Your task to perform on an android device: What's the weather going to be this weekend? Image 0: 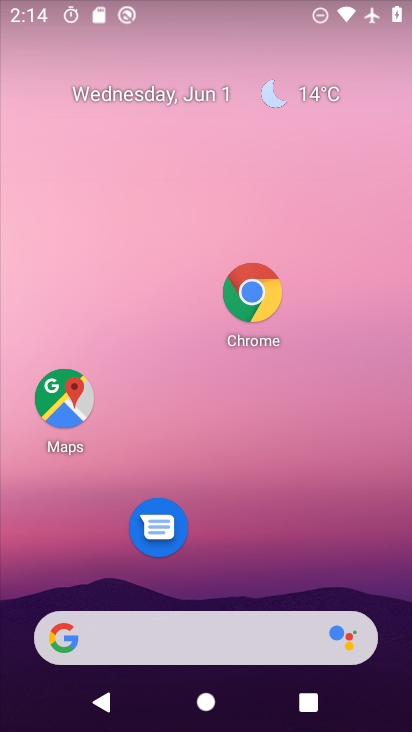
Step 0: drag from (235, 406) to (235, 206)
Your task to perform on an android device: What's the weather going to be this weekend? Image 1: 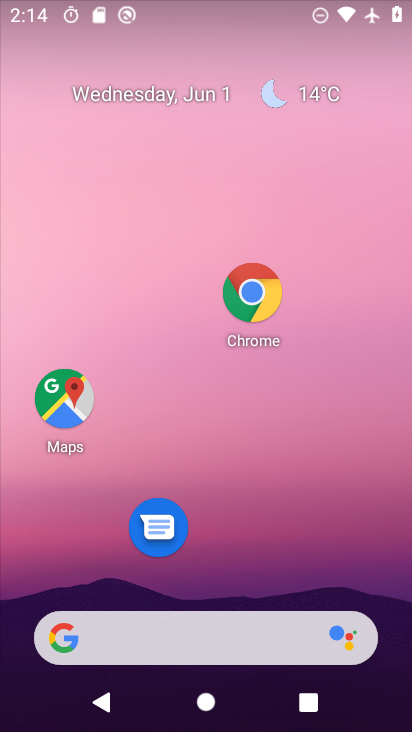
Step 1: drag from (264, 588) to (333, 138)
Your task to perform on an android device: What's the weather going to be this weekend? Image 2: 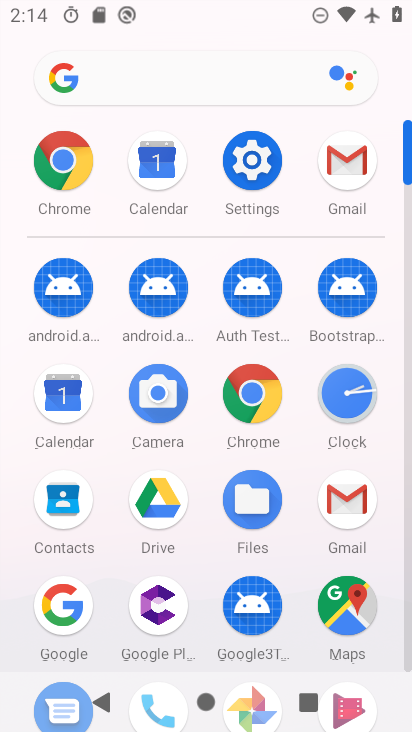
Step 2: drag from (257, 526) to (278, 351)
Your task to perform on an android device: What's the weather going to be this weekend? Image 3: 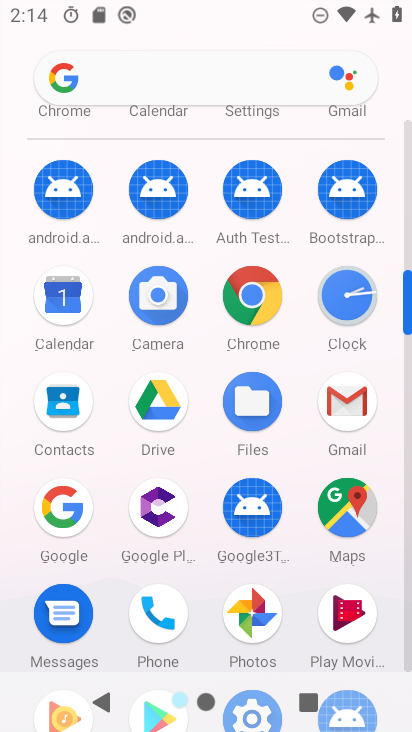
Step 3: click (71, 521)
Your task to perform on an android device: What's the weather going to be this weekend? Image 4: 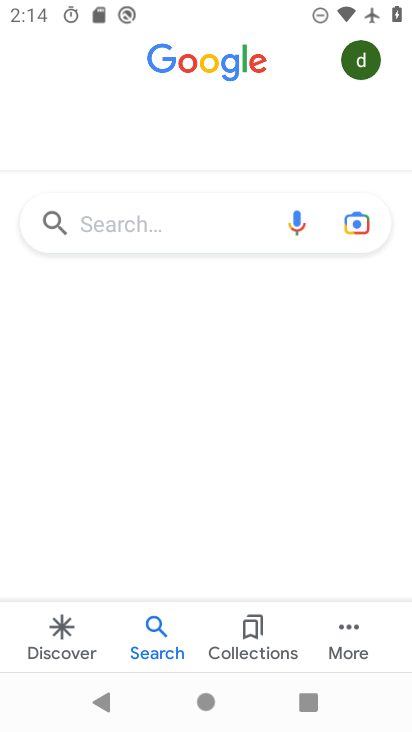
Step 4: click (189, 230)
Your task to perform on an android device: What's the weather going to be this weekend? Image 5: 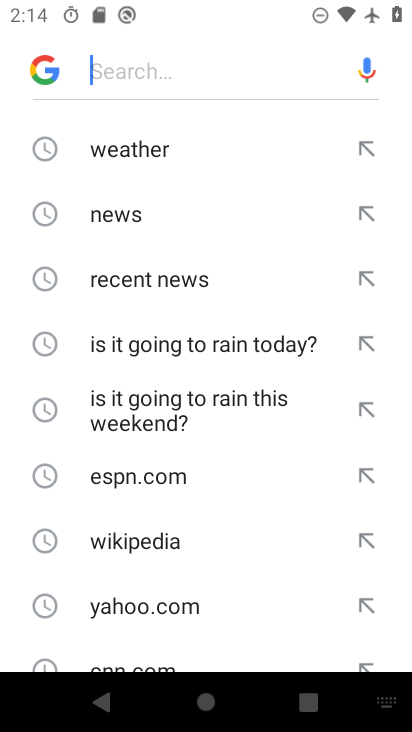
Step 5: click (217, 140)
Your task to perform on an android device: What's the weather going to be this weekend? Image 6: 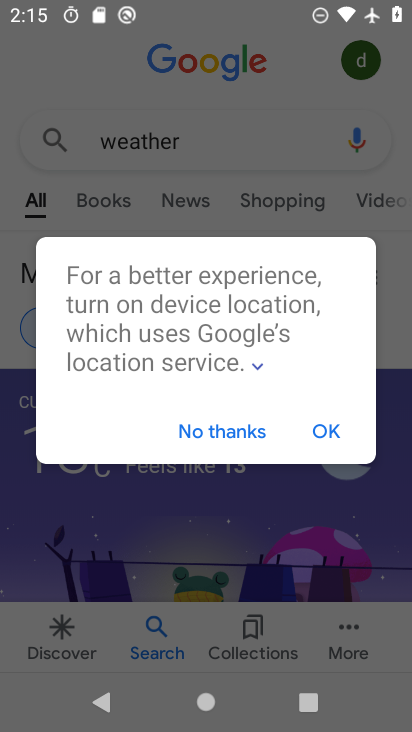
Step 6: click (330, 438)
Your task to perform on an android device: What's the weather going to be this weekend? Image 7: 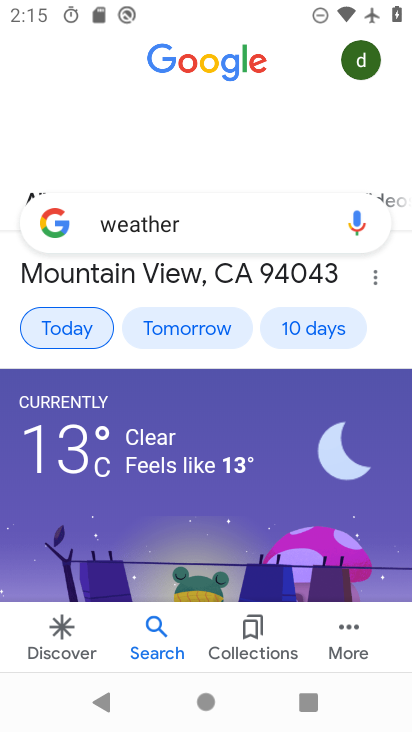
Step 7: click (215, 331)
Your task to perform on an android device: What's the weather going to be this weekend? Image 8: 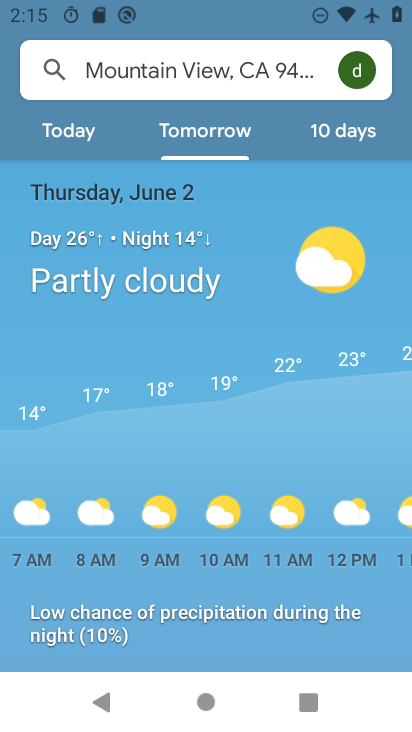
Step 8: task complete